Your task to perform on an android device: Open ESPN.com Image 0: 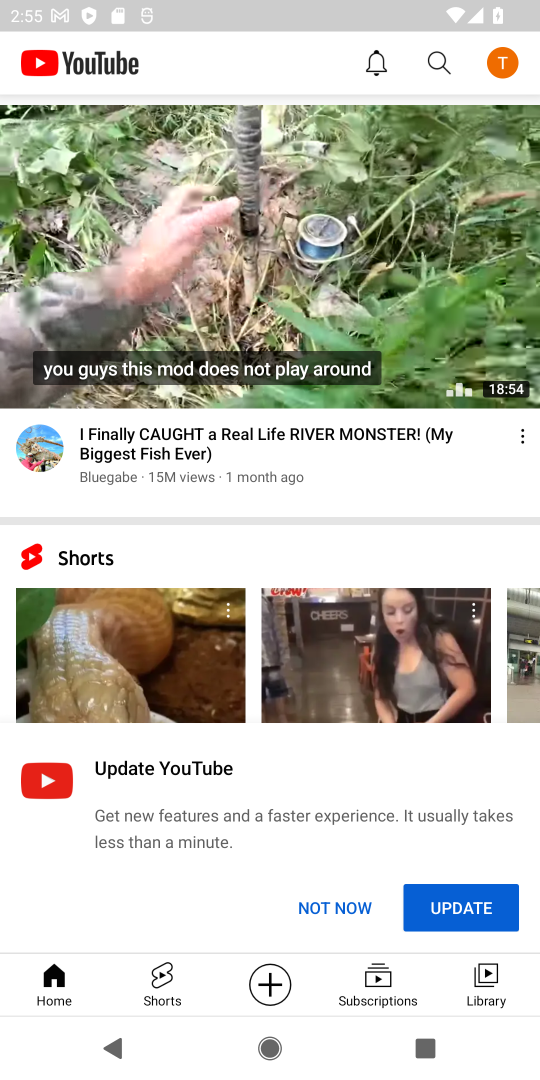
Step 0: press home button
Your task to perform on an android device: Open ESPN.com Image 1: 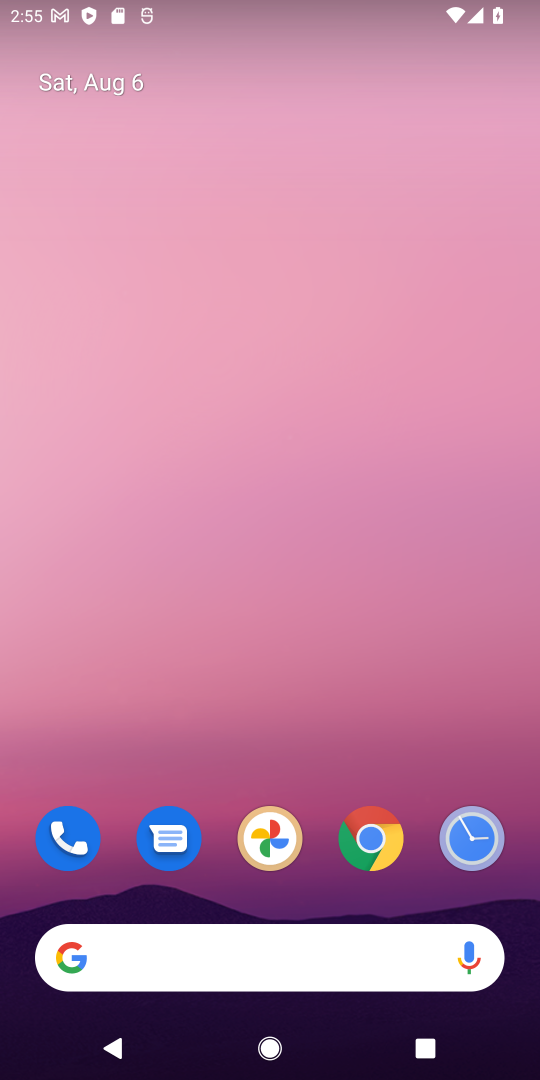
Step 1: click (359, 844)
Your task to perform on an android device: Open ESPN.com Image 2: 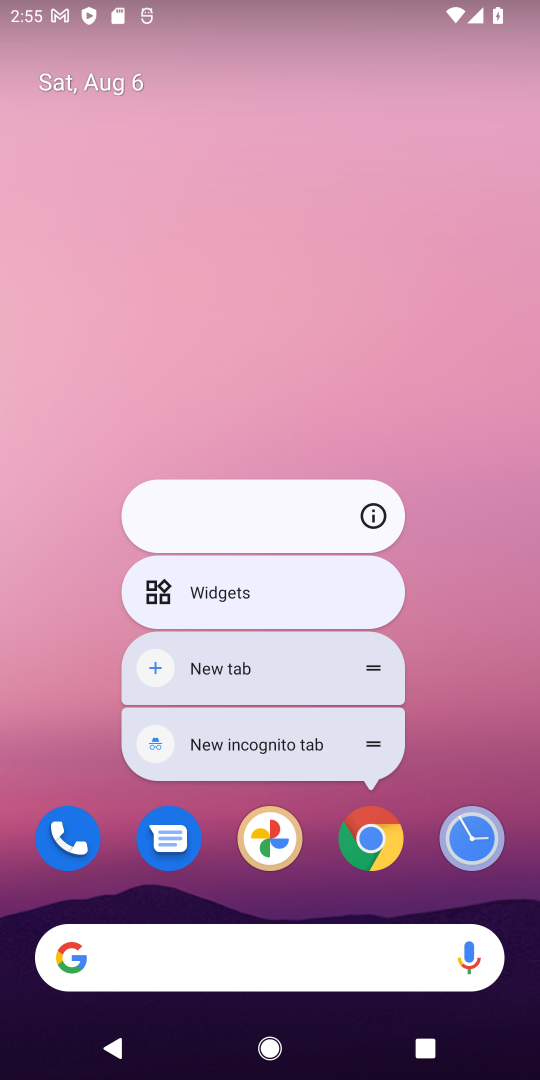
Step 2: click (359, 844)
Your task to perform on an android device: Open ESPN.com Image 3: 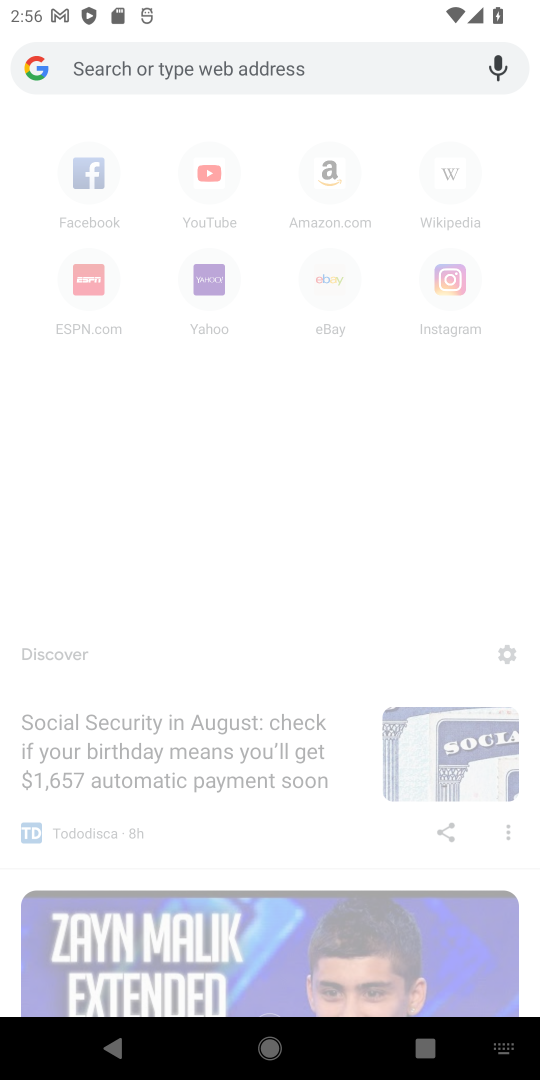
Step 3: click (104, 269)
Your task to perform on an android device: Open ESPN.com Image 4: 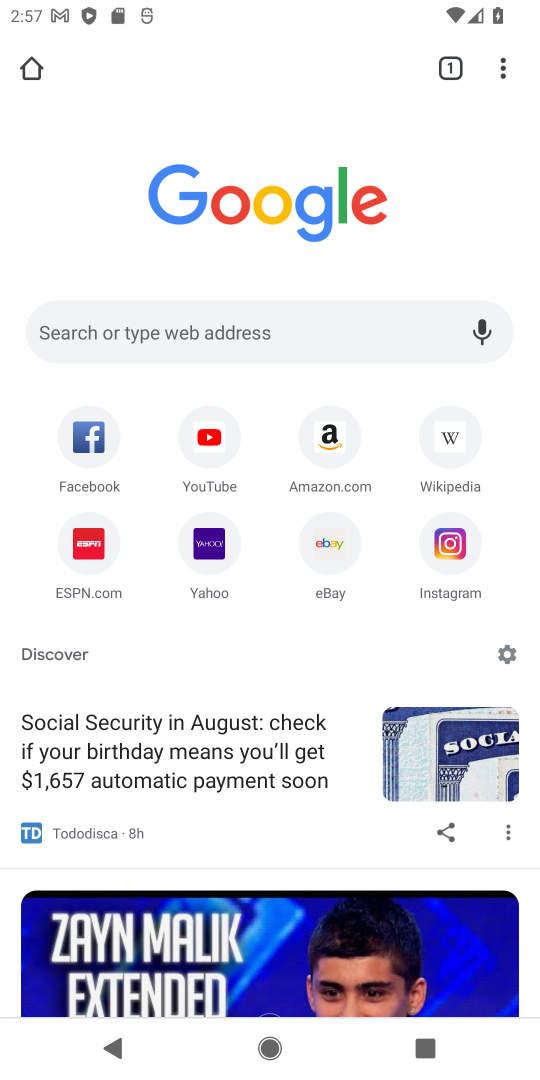
Step 4: click (62, 546)
Your task to perform on an android device: Open ESPN.com Image 5: 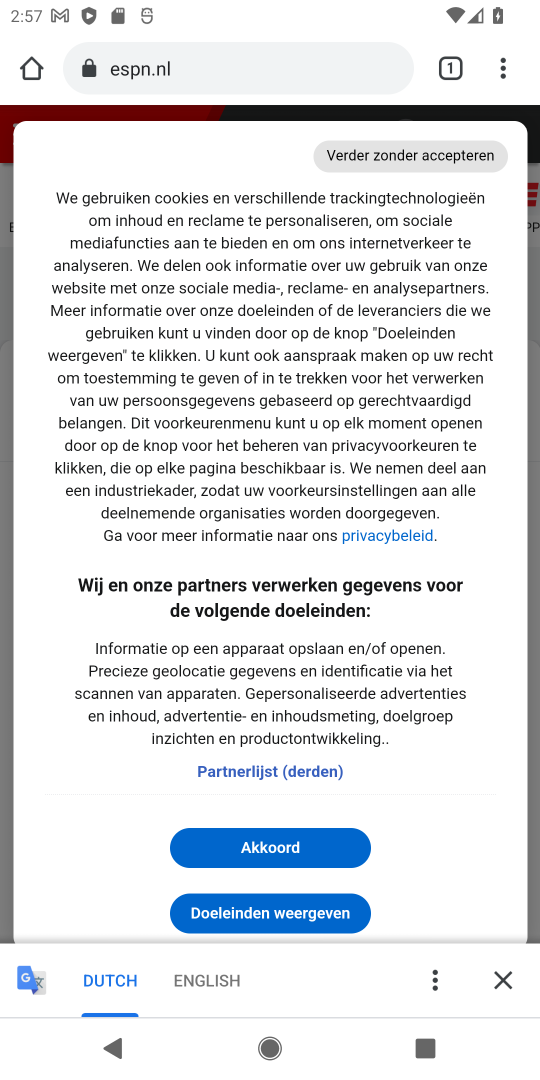
Step 5: task complete